Your task to perform on an android device: change timer sound Image 0: 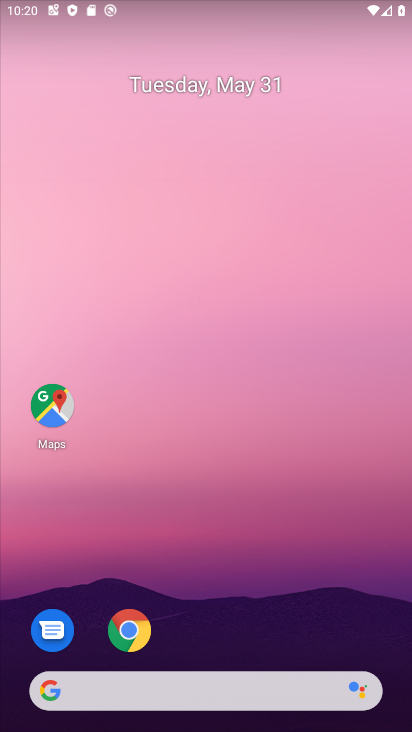
Step 0: drag from (271, 468) to (277, 95)
Your task to perform on an android device: change timer sound Image 1: 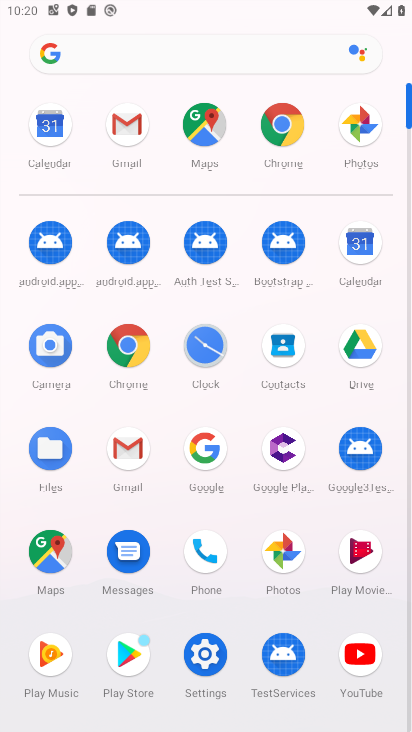
Step 1: click (199, 329)
Your task to perform on an android device: change timer sound Image 2: 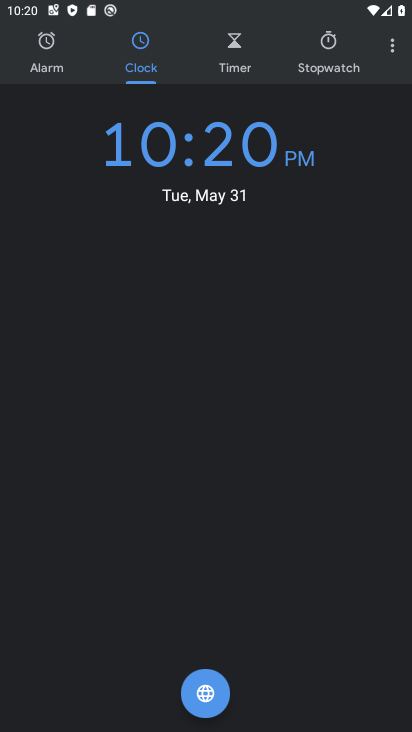
Step 2: click (388, 43)
Your task to perform on an android device: change timer sound Image 3: 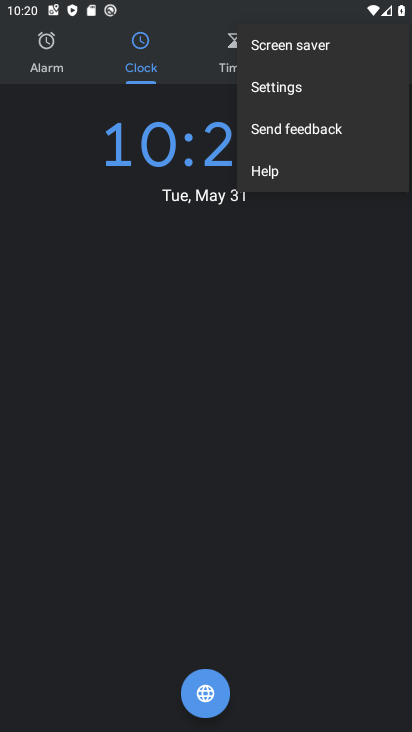
Step 3: click (301, 89)
Your task to perform on an android device: change timer sound Image 4: 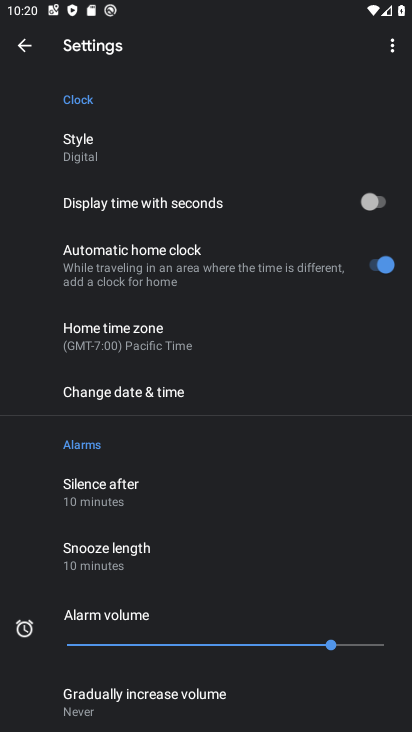
Step 4: drag from (354, 595) to (338, 342)
Your task to perform on an android device: change timer sound Image 5: 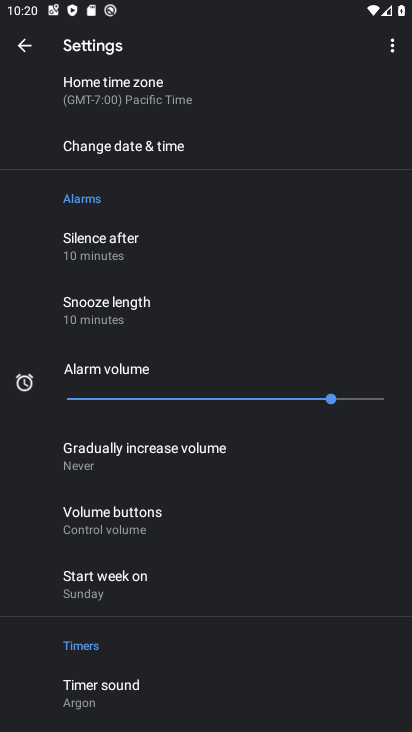
Step 5: click (166, 694)
Your task to perform on an android device: change timer sound Image 6: 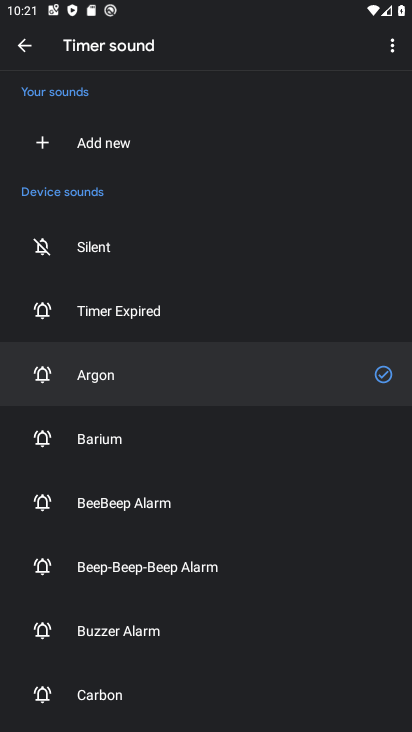
Step 6: click (106, 437)
Your task to perform on an android device: change timer sound Image 7: 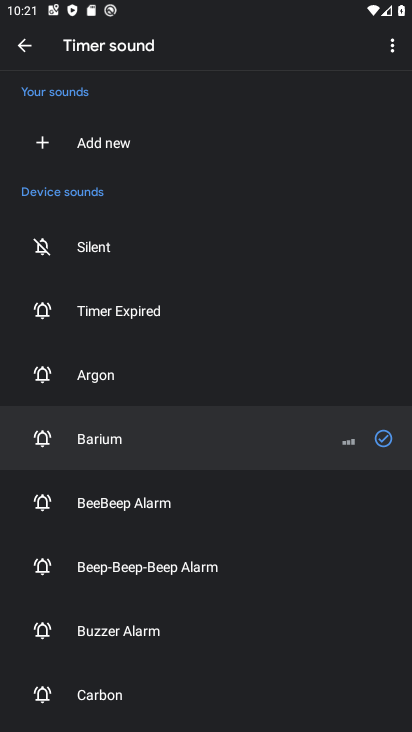
Step 7: task complete